Your task to perform on an android device: change the clock display to show seconds Image 0: 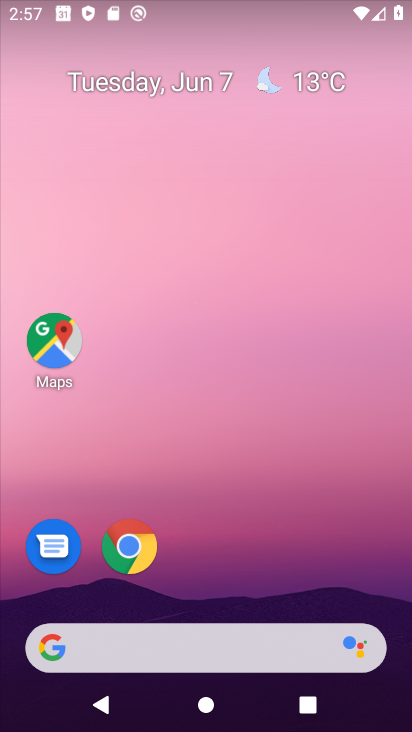
Step 0: drag from (257, 552) to (277, 204)
Your task to perform on an android device: change the clock display to show seconds Image 1: 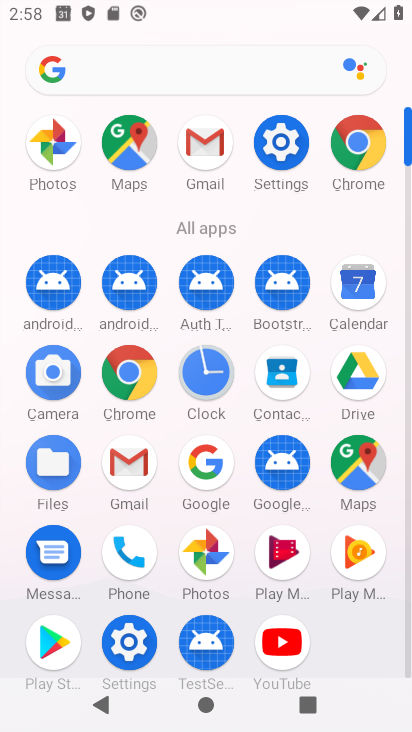
Step 1: click (211, 381)
Your task to perform on an android device: change the clock display to show seconds Image 2: 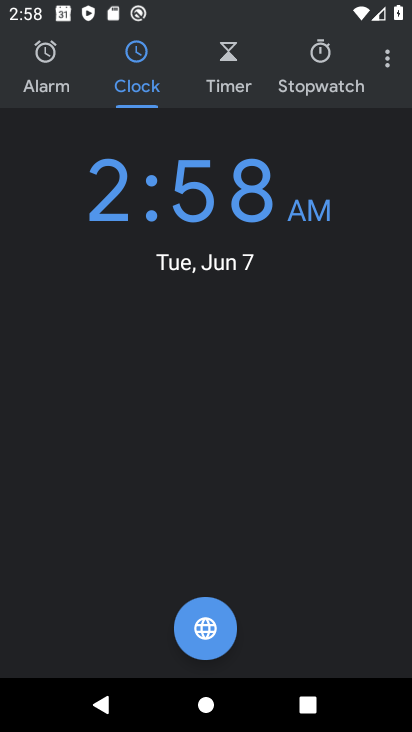
Step 2: click (385, 63)
Your task to perform on an android device: change the clock display to show seconds Image 3: 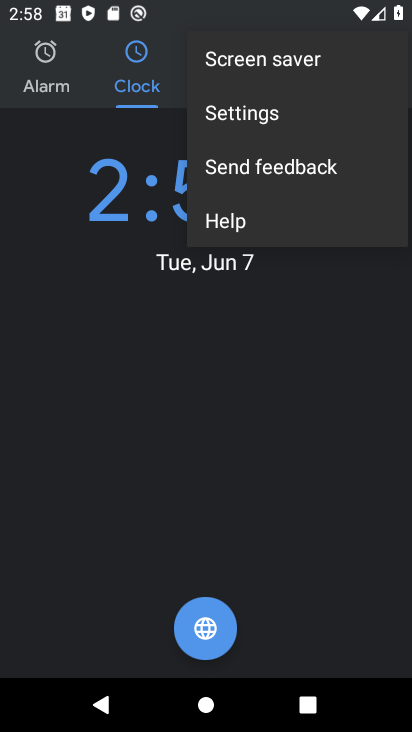
Step 3: click (236, 110)
Your task to perform on an android device: change the clock display to show seconds Image 4: 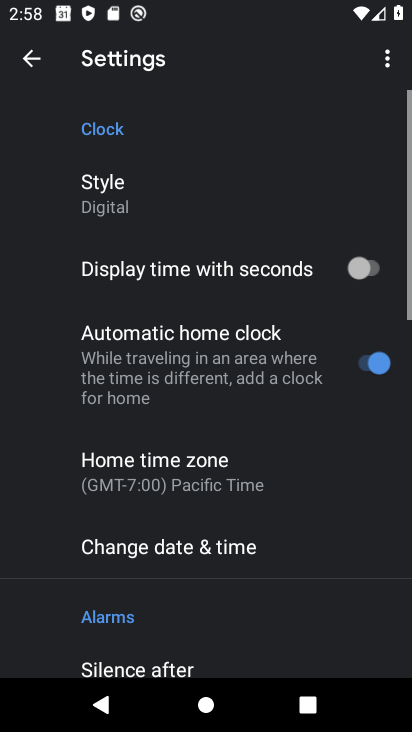
Step 4: click (370, 267)
Your task to perform on an android device: change the clock display to show seconds Image 5: 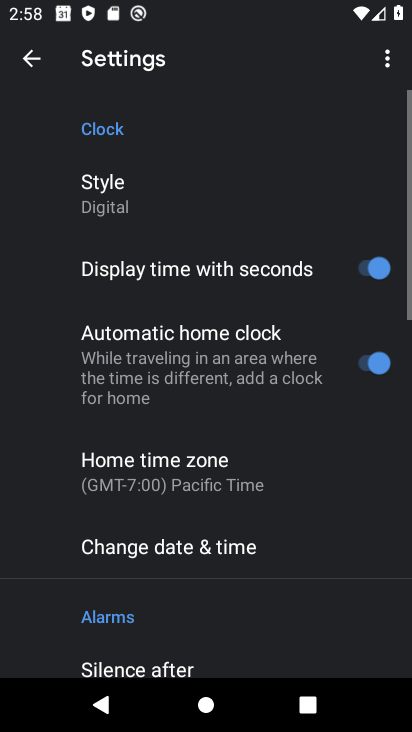
Step 5: task complete